Your task to perform on an android device: turn off notifications settings in the gmail app Image 0: 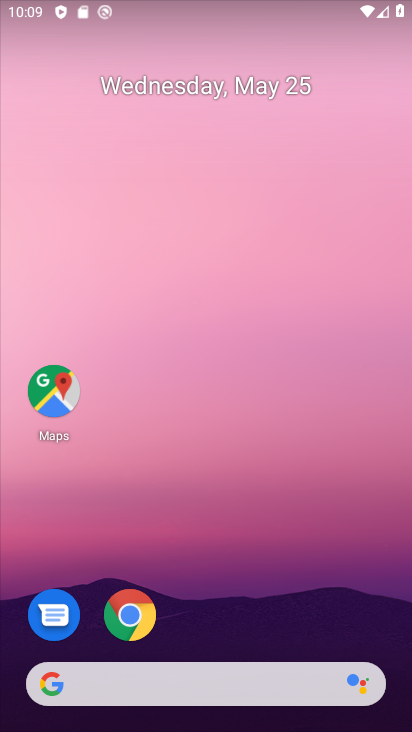
Step 0: drag from (229, 650) to (77, 65)
Your task to perform on an android device: turn off notifications settings in the gmail app Image 1: 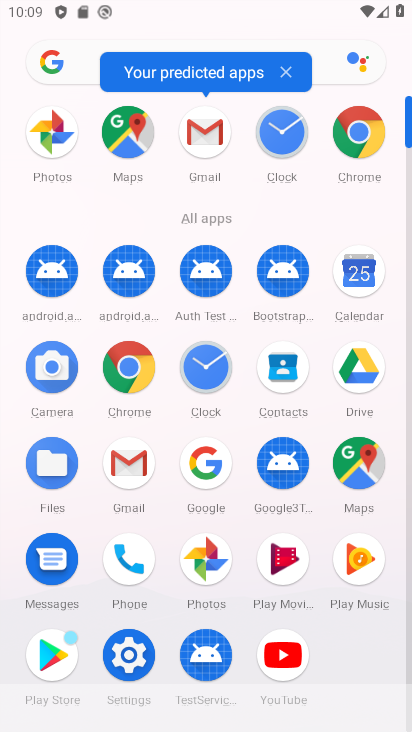
Step 1: click (125, 474)
Your task to perform on an android device: turn off notifications settings in the gmail app Image 2: 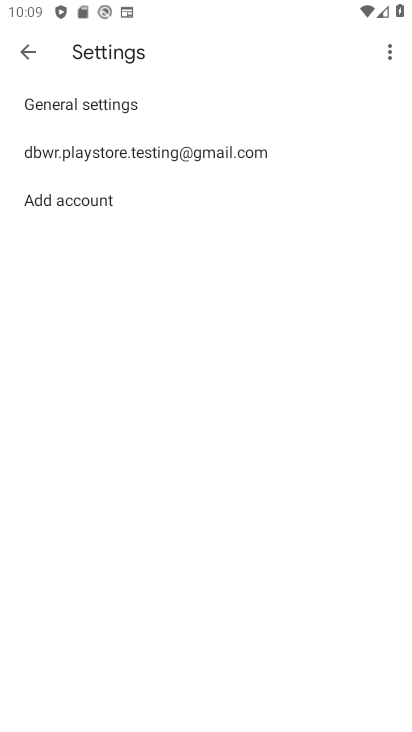
Step 2: click (54, 97)
Your task to perform on an android device: turn off notifications settings in the gmail app Image 3: 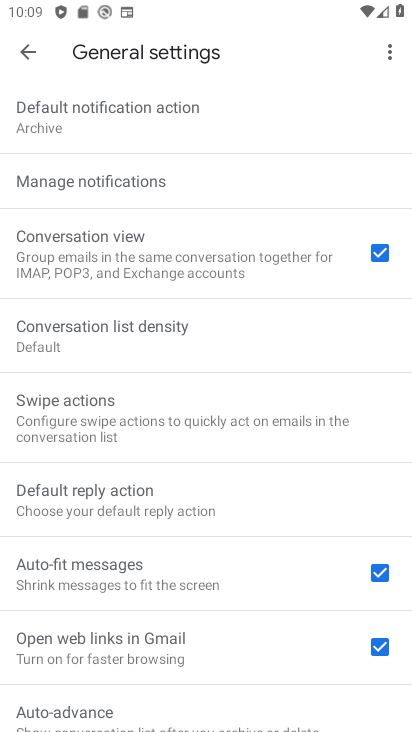
Step 3: click (163, 169)
Your task to perform on an android device: turn off notifications settings in the gmail app Image 4: 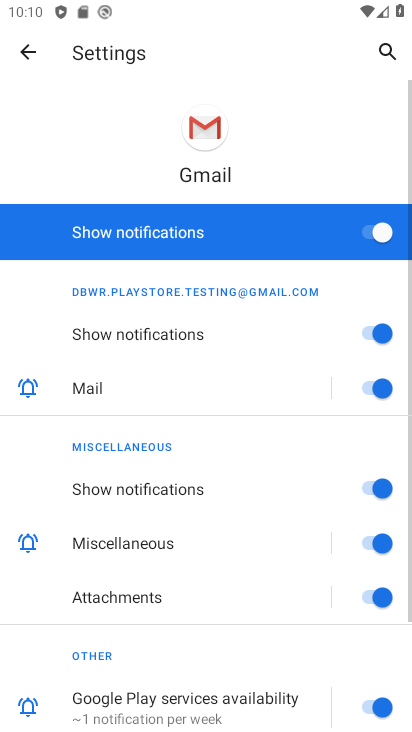
Step 4: click (372, 235)
Your task to perform on an android device: turn off notifications settings in the gmail app Image 5: 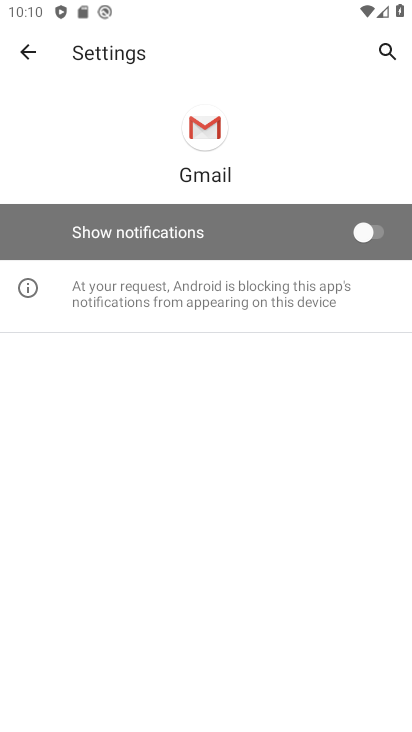
Step 5: task complete